Your task to perform on an android device: Go to Amazon Image 0: 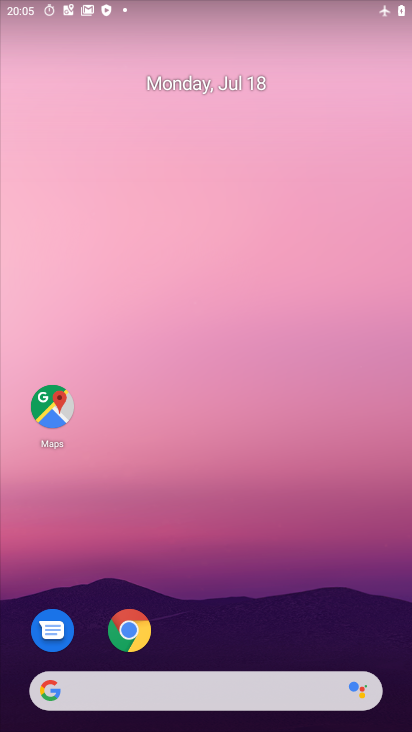
Step 0: drag from (204, 566) to (245, 84)
Your task to perform on an android device: Go to Amazon Image 1: 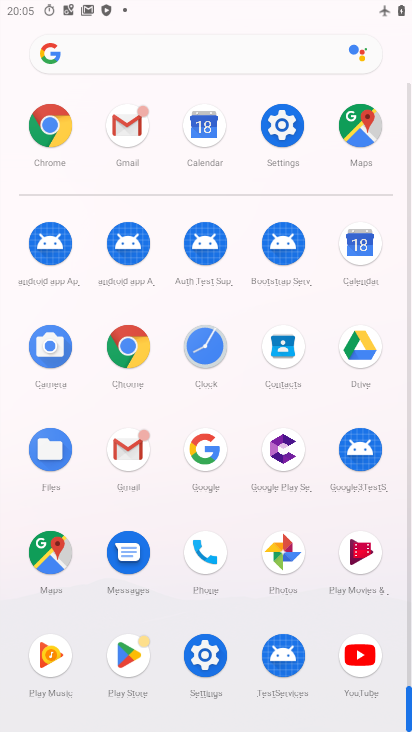
Step 1: click (124, 347)
Your task to perform on an android device: Go to Amazon Image 2: 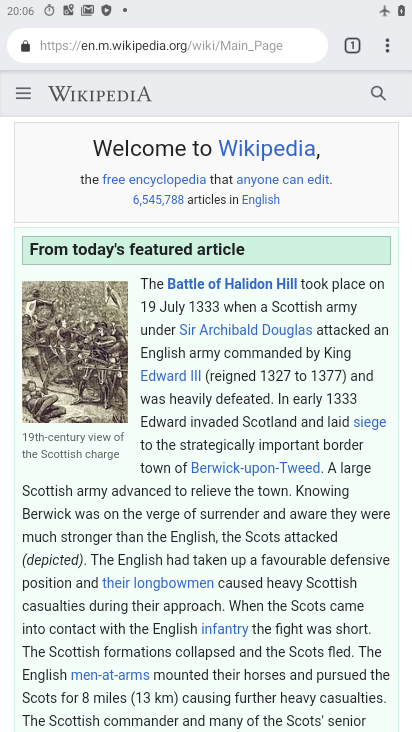
Step 2: press back button
Your task to perform on an android device: Go to Amazon Image 3: 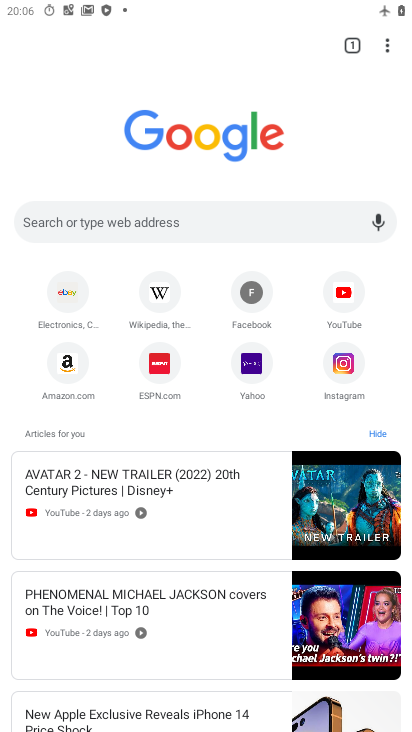
Step 3: click (64, 361)
Your task to perform on an android device: Go to Amazon Image 4: 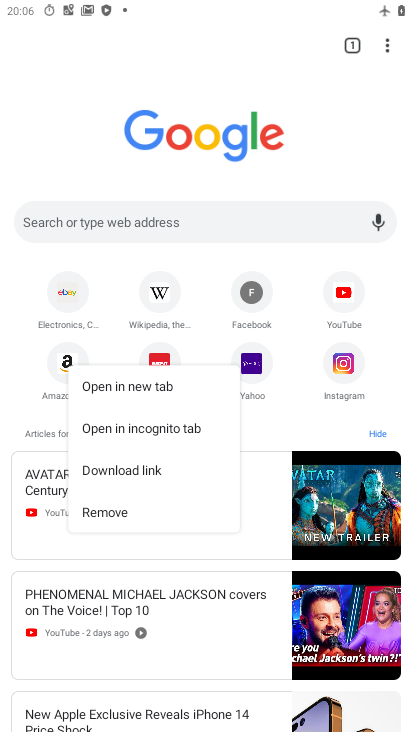
Step 4: click (50, 353)
Your task to perform on an android device: Go to Amazon Image 5: 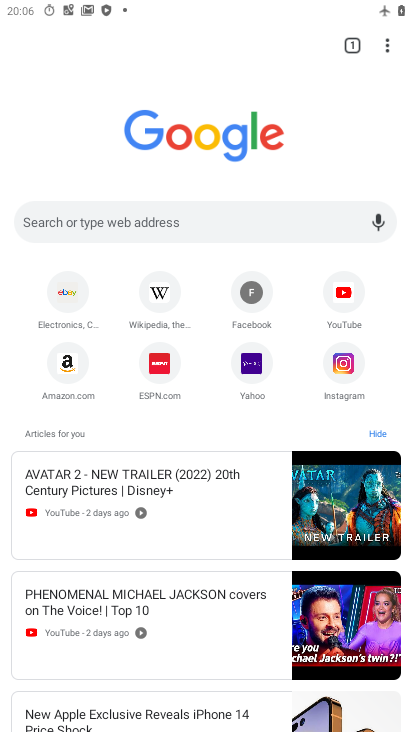
Step 5: click (68, 370)
Your task to perform on an android device: Go to Amazon Image 6: 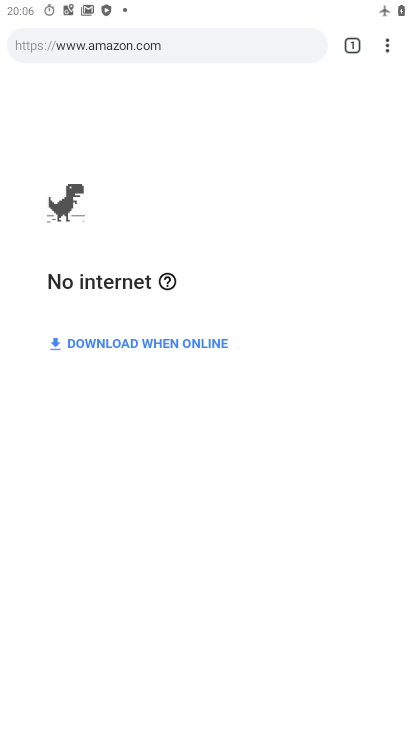
Step 6: task complete